Your task to perform on an android device: Open accessibility settings Image 0: 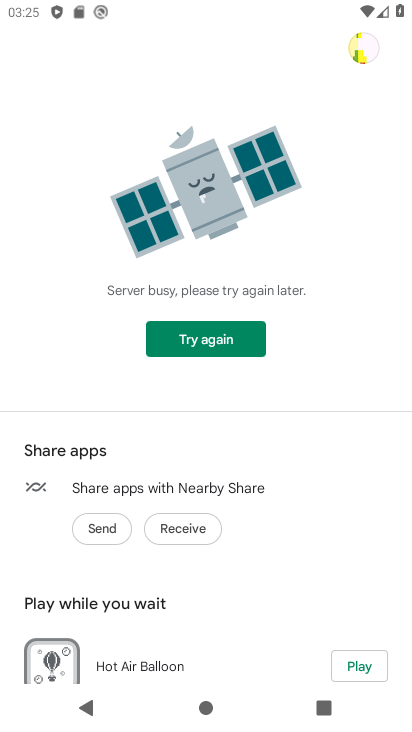
Step 0: press home button
Your task to perform on an android device: Open accessibility settings Image 1: 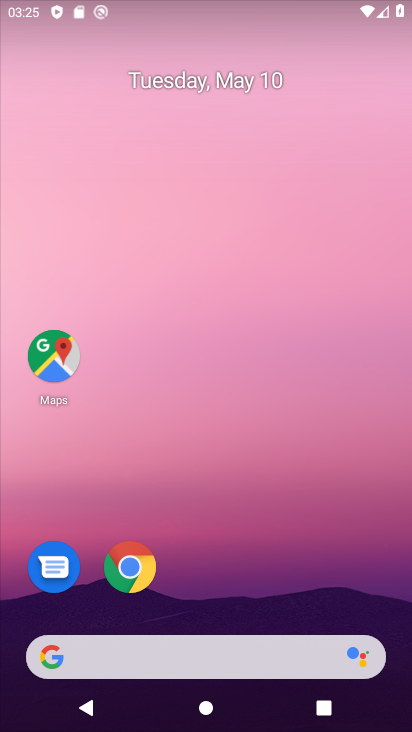
Step 1: drag from (230, 564) to (208, 47)
Your task to perform on an android device: Open accessibility settings Image 2: 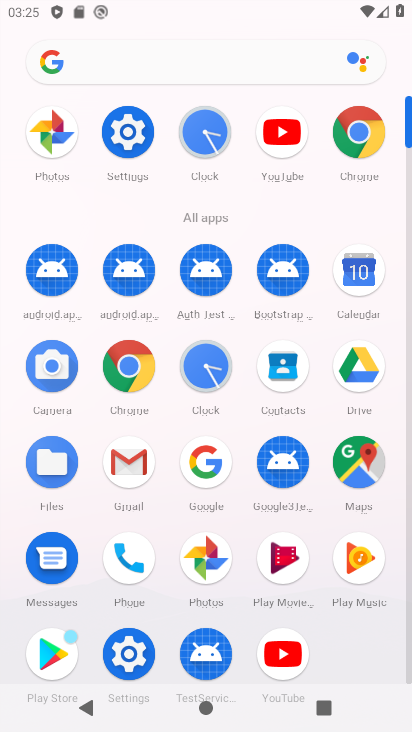
Step 2: click (126, 129)
Your task to perform on an android device: Open accessibility settings Image 3: 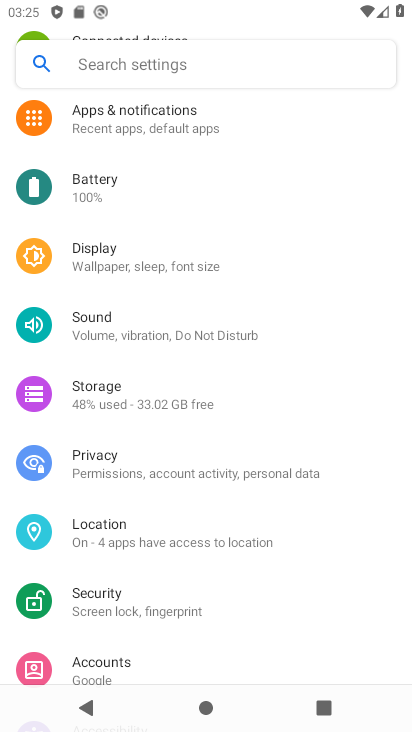
Step 3: drag from (195, 565) to (152, 9)
Your task to perform on an android device: Open accessibility settings Image 4: 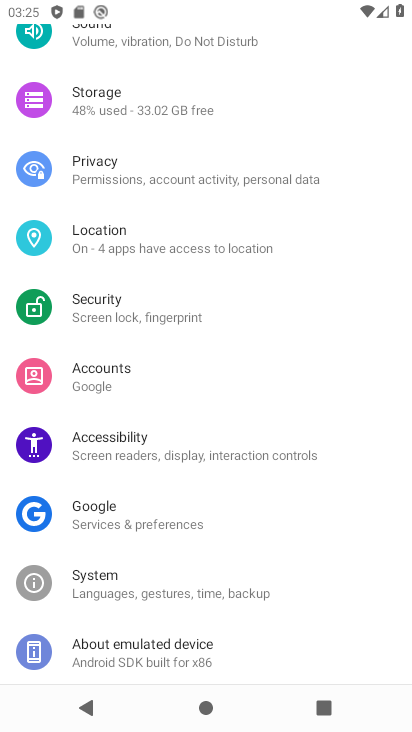
Step 4: click (134, 441)
Your task to perform on an android device: Open accessibility settings Image 5: 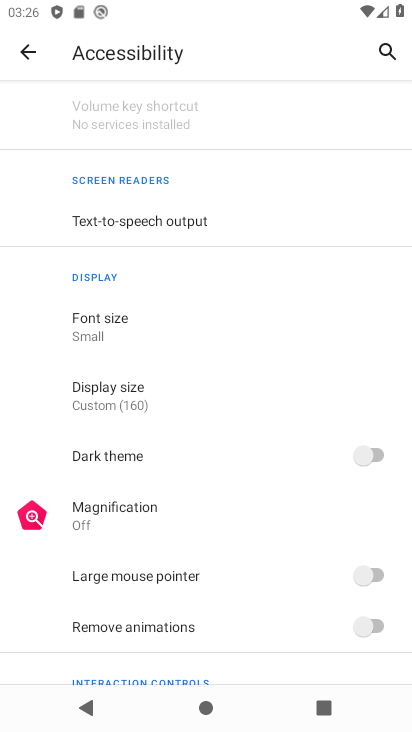
Step 5: task complete